Your task to perform on an android device: turn off picture-in-picture Image 0: 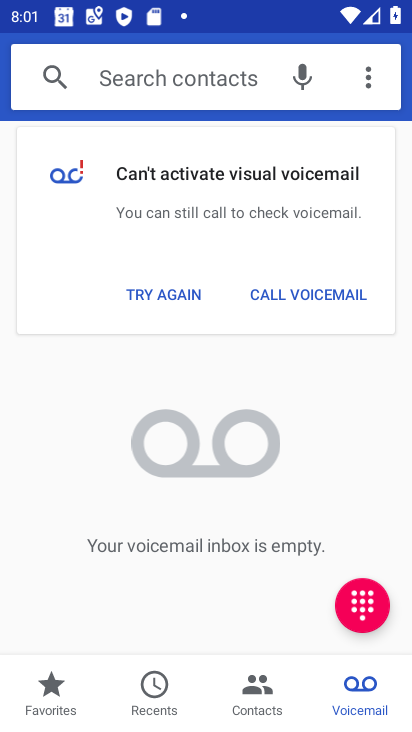
Step 0: press home button
Your task to perform on an android device: turn off picture-in-picture Image 1: 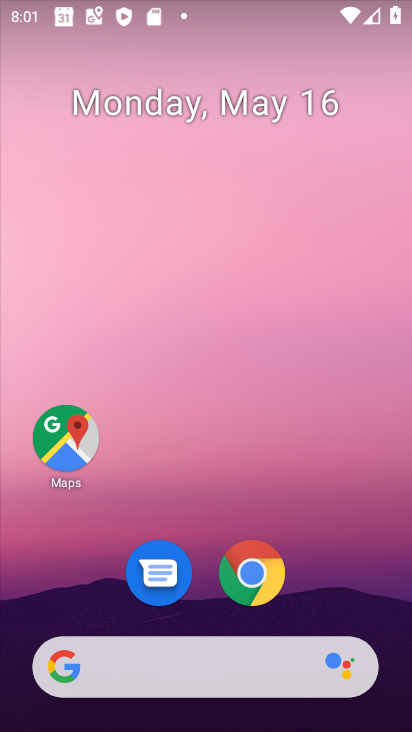
Step 1: click (267, 574)
Your task to perform on an android device: turn off picture-in-picture Image 2: 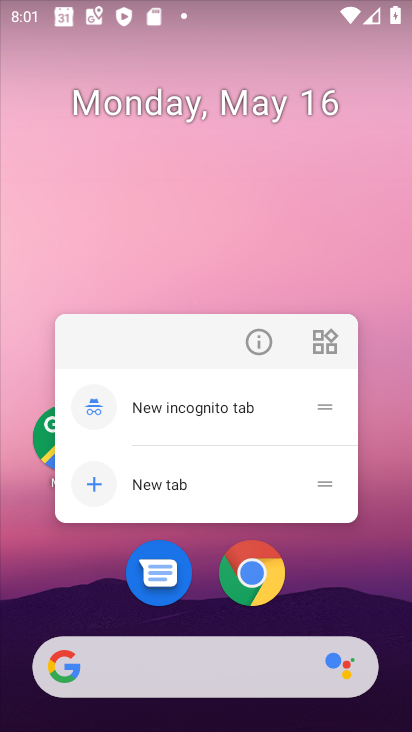
Step 2: click (259, 327)
Your task to perform on an android device: turn off picture-in-picture Image 3: 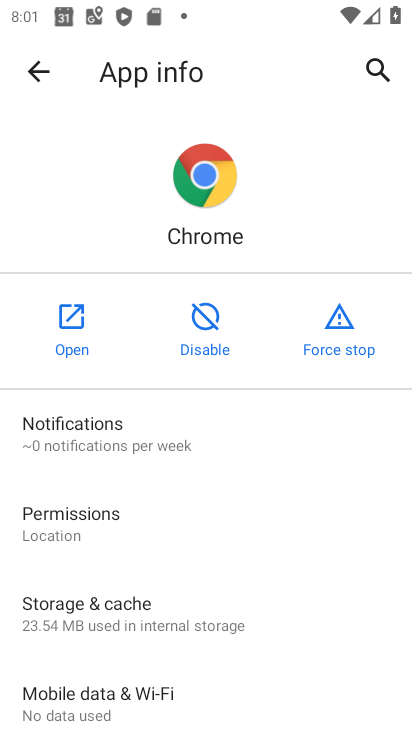
Step 3: drag from (204, 626) to (197, 274)
Your task to perform on an android device: turn off picture-in-picture Image 4: 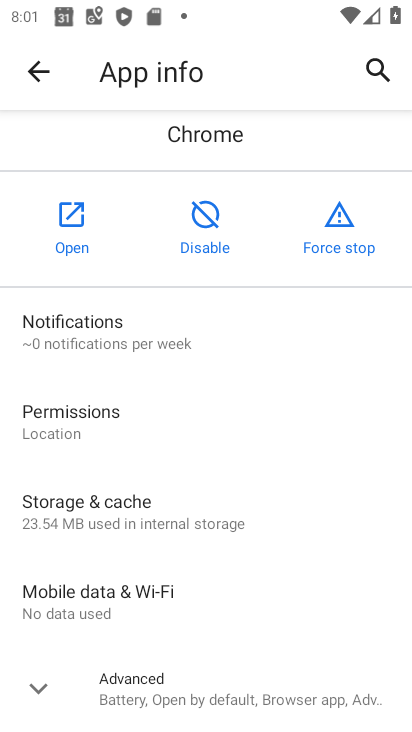
Step 4: drag from (250, 683) to (206, 295)
Your task to perform on an android device: turn off picture-in-picture Image 5: 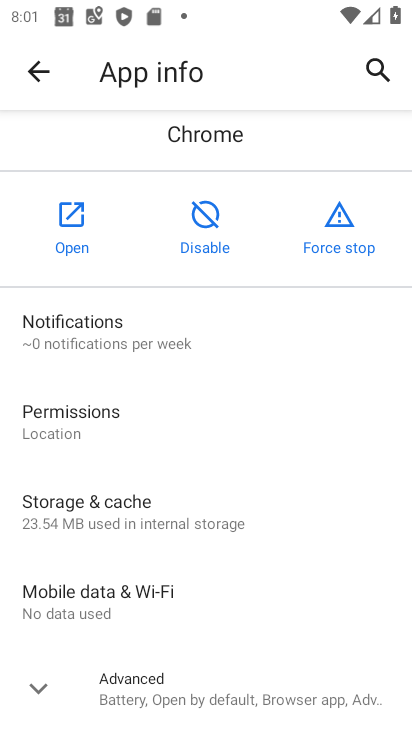
Step 5: click (159, 696)
Your task to perform on an android device: turn off picture-in-picture Image 6: 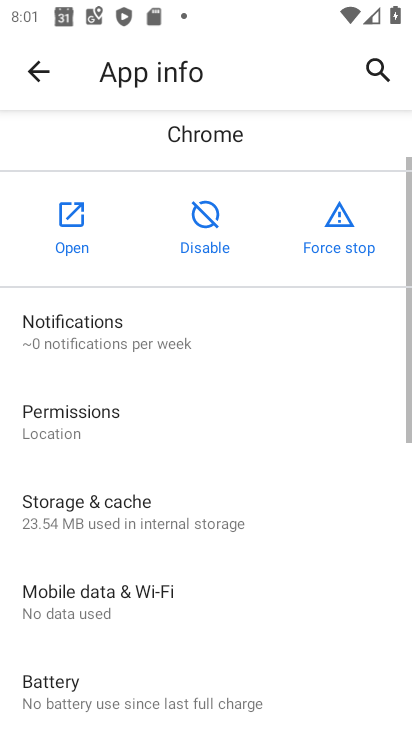
Step 6: drag from (159, 695) to (124, 302)
Your task to perform on an android device: turn off picture-in-picture Image 7: 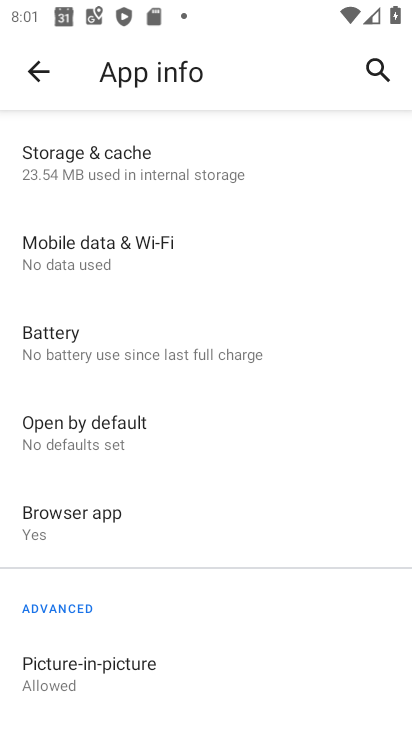
Step 7: click (119, 655)
Your task to perform on an android device: turn off picture-in-picture Image 8: 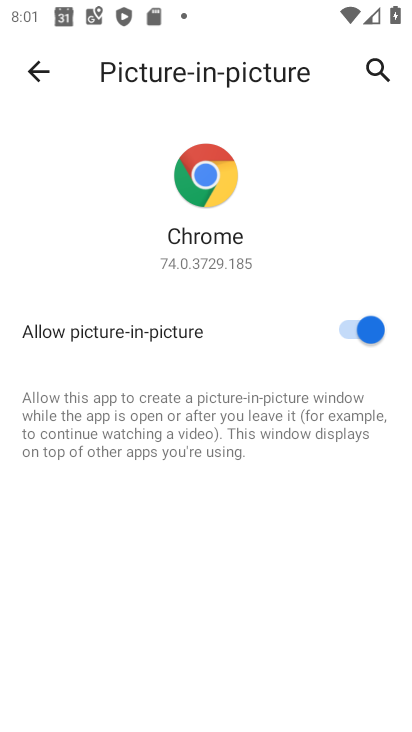
Step 8: click (354, 322)
Your task to perform on an android device: turn off picture-in-picture Image 9: 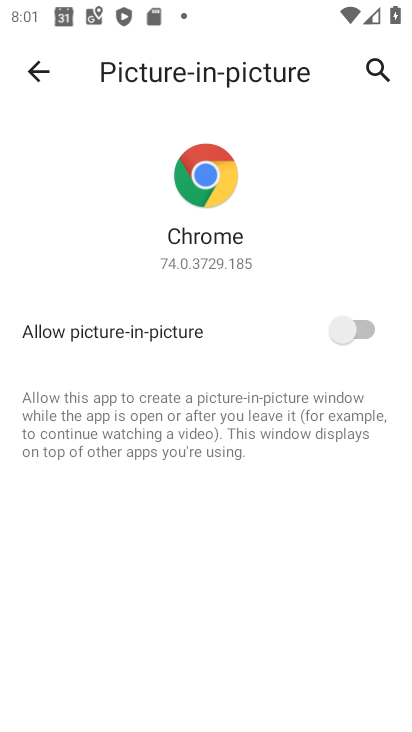
Step 9: task complete